Your task to perform on an android device: turn on location history Image 0: 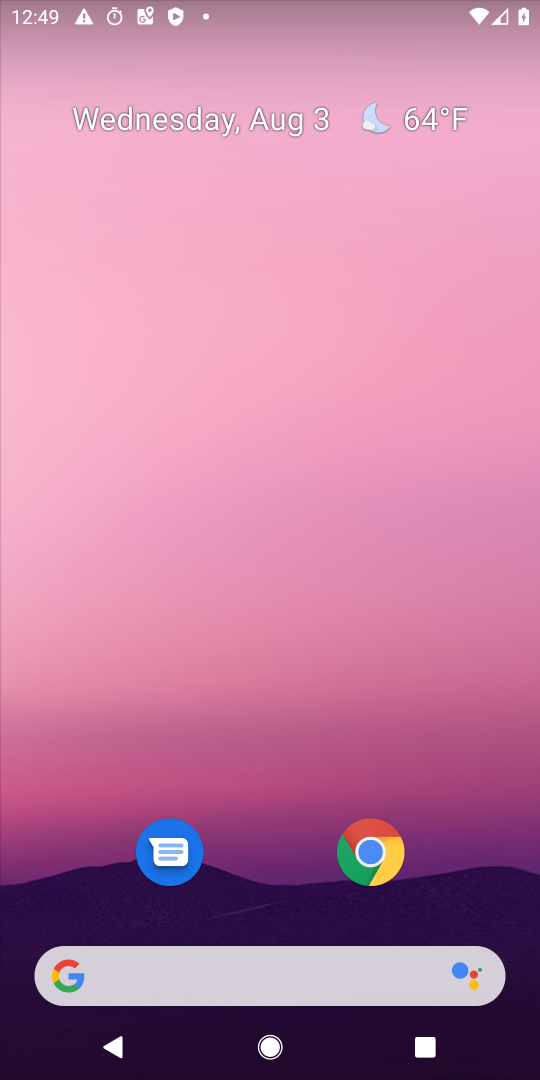
Step 0: drag from (477, 835) to (157, 156)
Your task to perform on an android device: turn on location history Image 1: 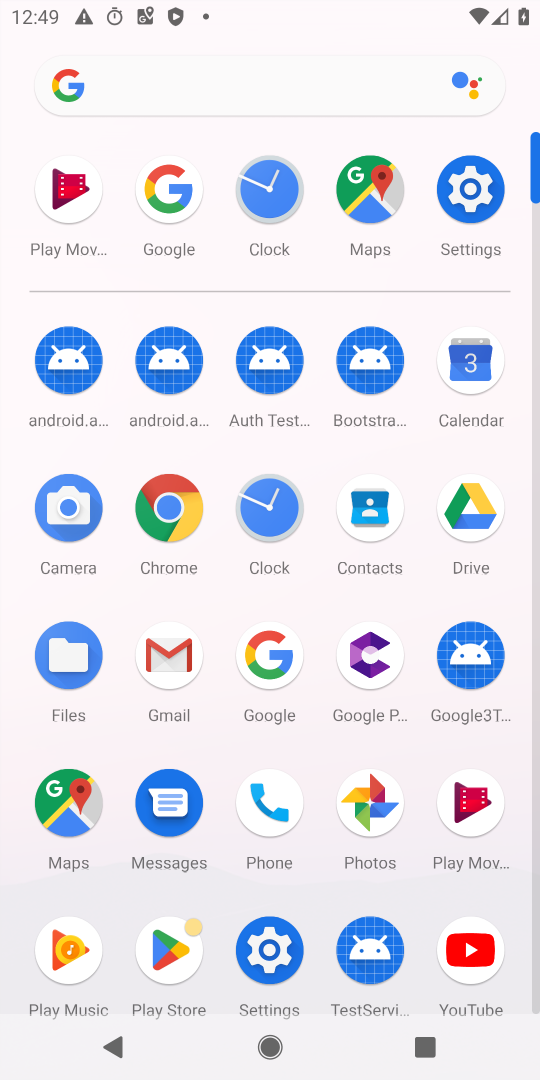
Step 1: click (280, 934)
Your task to perform on an android device: turn on location history Image 2: 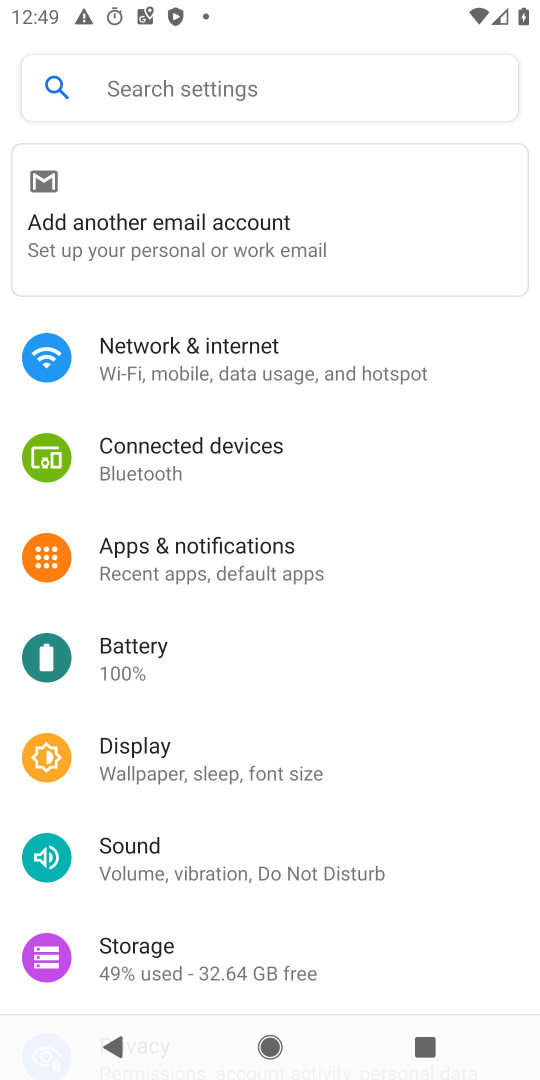
Step 2: drag from (164, 939) to (208, 421)
Your task to perform on an android device: turn on location history Image 3: 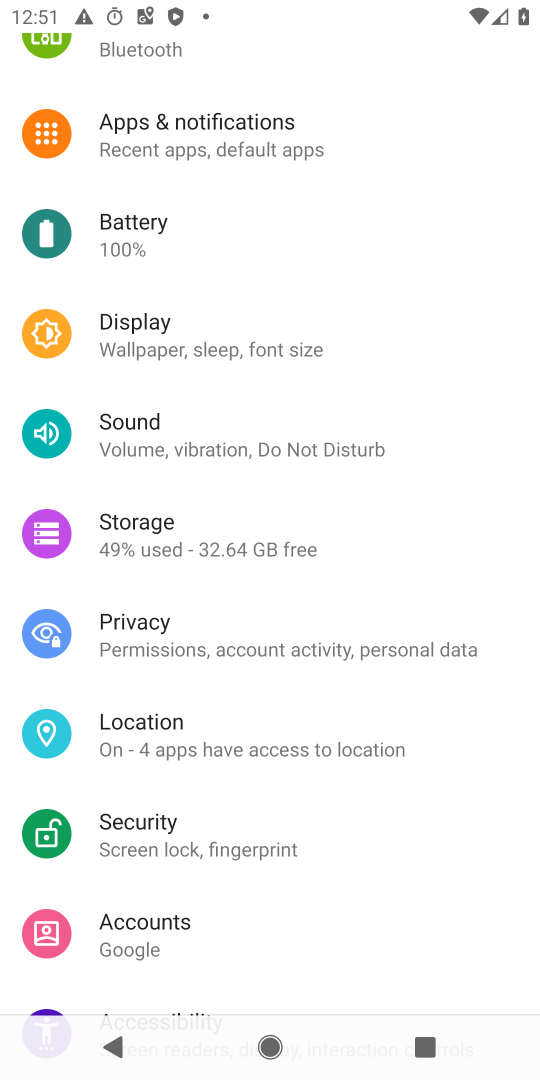
Step 3: click (180, 721)
Your task to perform on an android device: turn on location history Image 4: 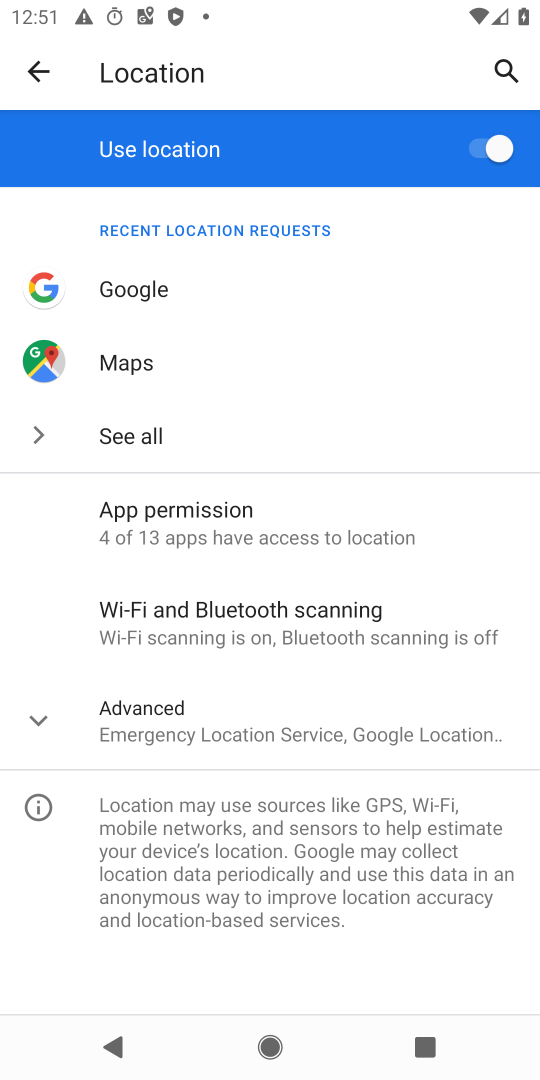
Step 4: click (180, 721)
Your task to perform on an android device: turn on location history Image 5: 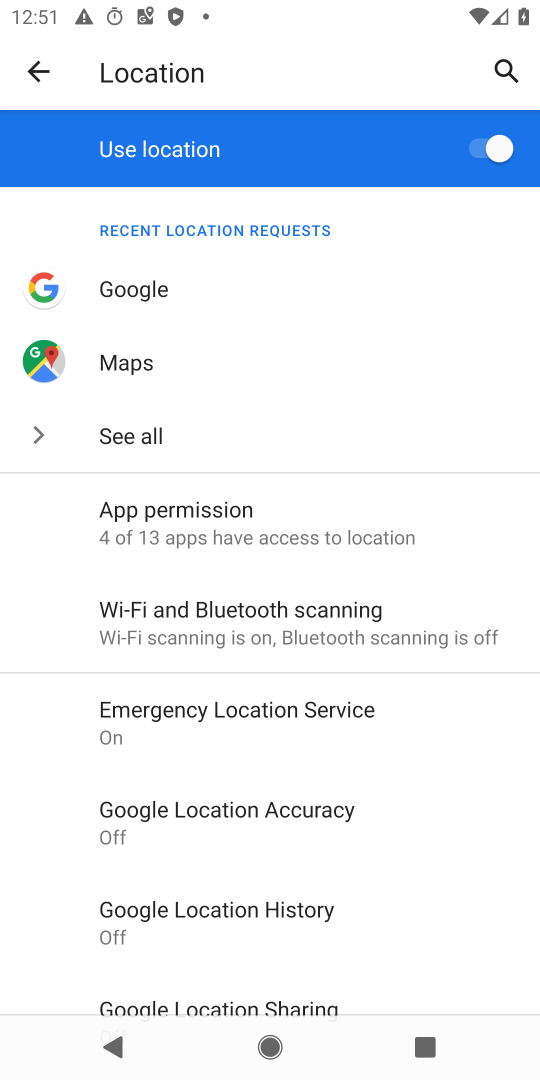
Step 5: click (264, 929)
Your task to perform on an android device: turn on location history Image 6: 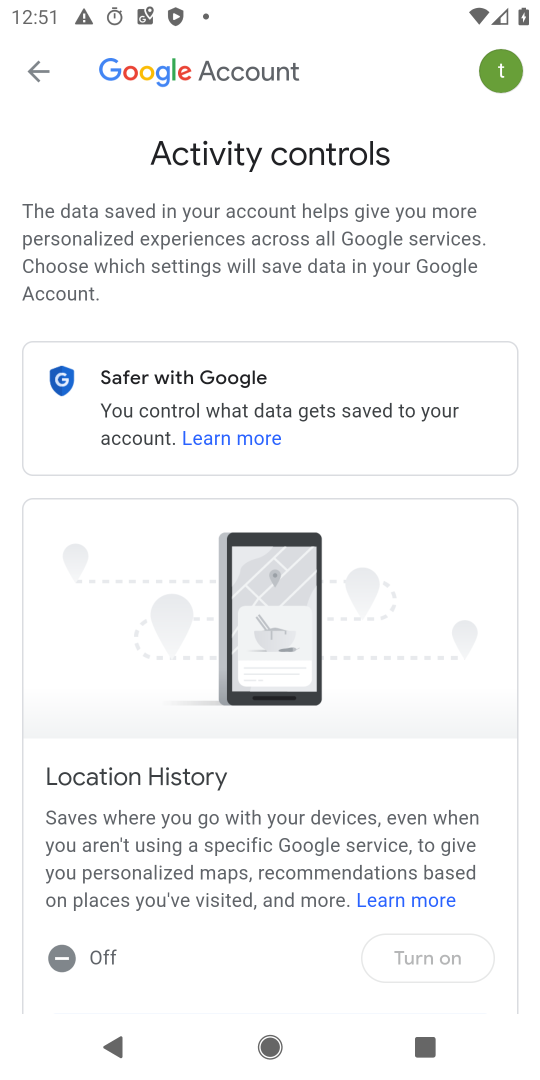
Step 6: task complete